Your task to perform on an android device: change notification settings in the gmail app Image 0: 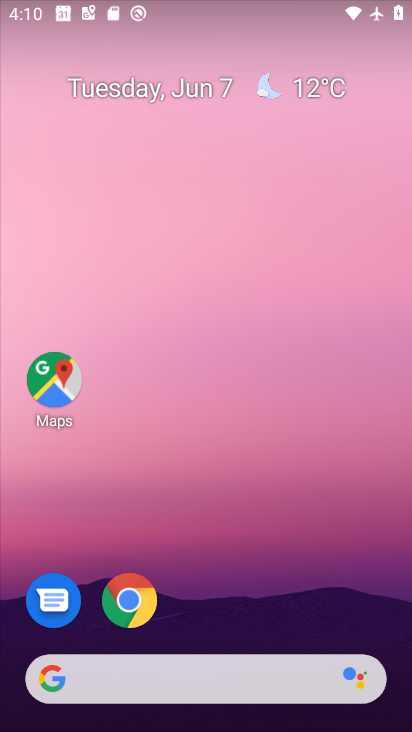
Step 0: drag from (297, 577) to (311, 88)
Your task to perform on an android device: change notification settings in the gmail app Image 1: 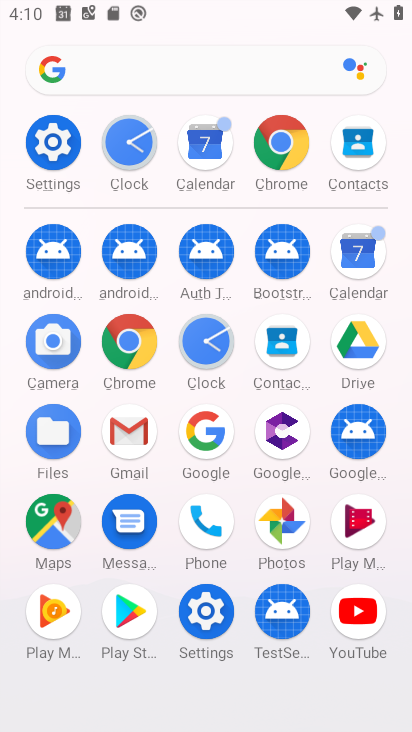
Step 1: click (135, 434)
Your task to perform on an android device: change notification settings in the gmail app Image 2: 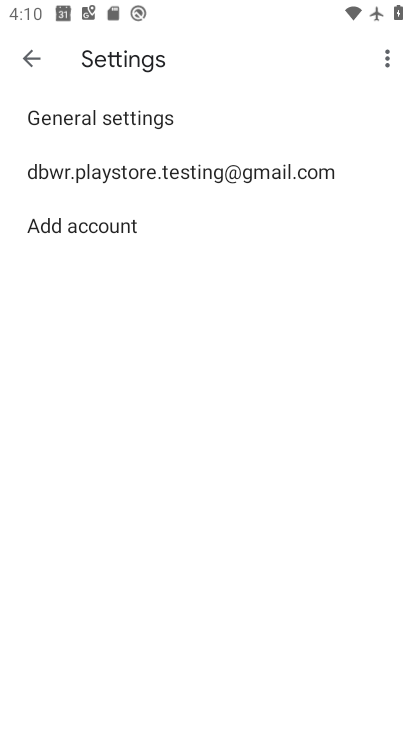
Step 2: click (90, 176)
Your task to perform on an android device: change notification settings in the gmail app Image 3: 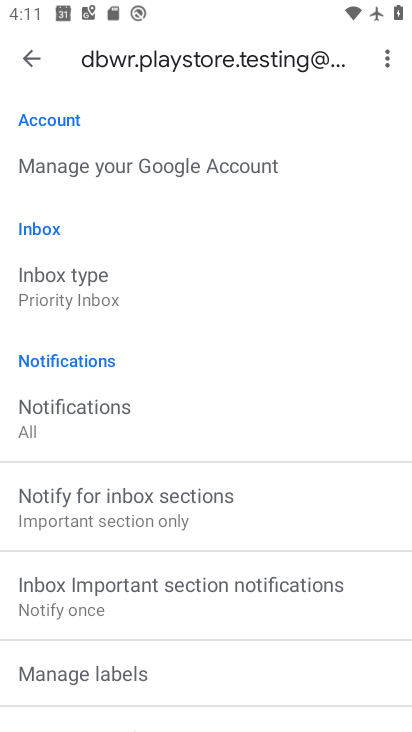
Step 3: drag from (96, 211) to (252, 615)
Your task to perform on an android device: change notification settings in the gmail app Image 4: 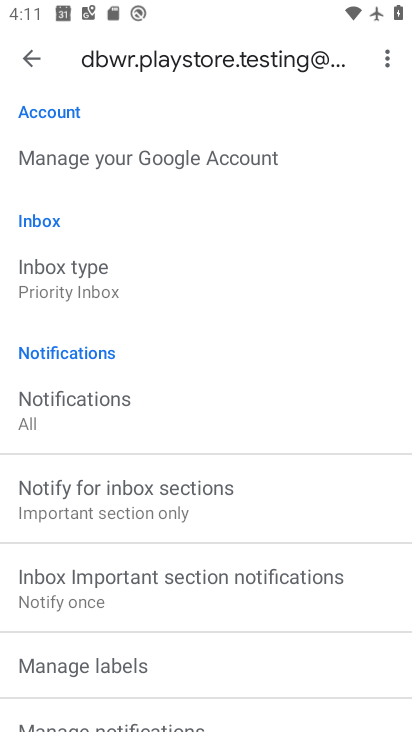
Step 4: drag from (209, 607) to (274, 257)
Your task to perform on an android device: change notification settings in the gmail app Image 5: 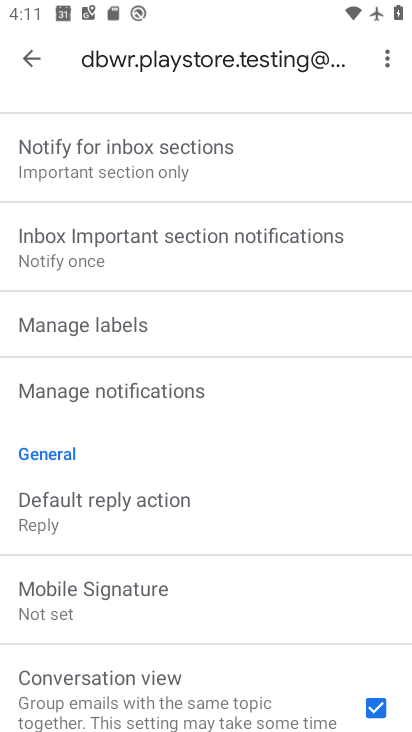
Step 5: click (176, 398)
Your task to perform on an android device: change notification settings in the gmail app Image 6: 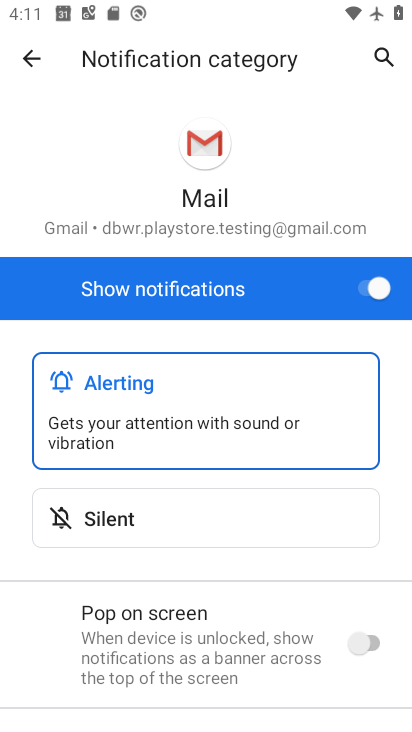
Step 6: click (370, 277)
Your task to perform on an android device: change notification settings in the gmail app Image 7: 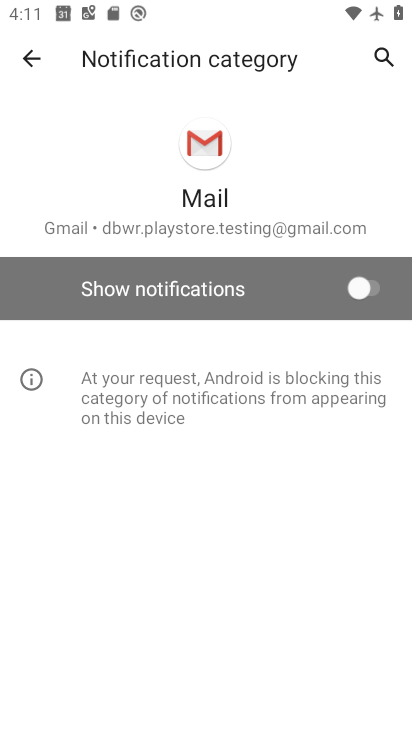
Step 7: task complete